Your task to perform on an android device: Open Google Maps and go to "Timeline" Image 0: 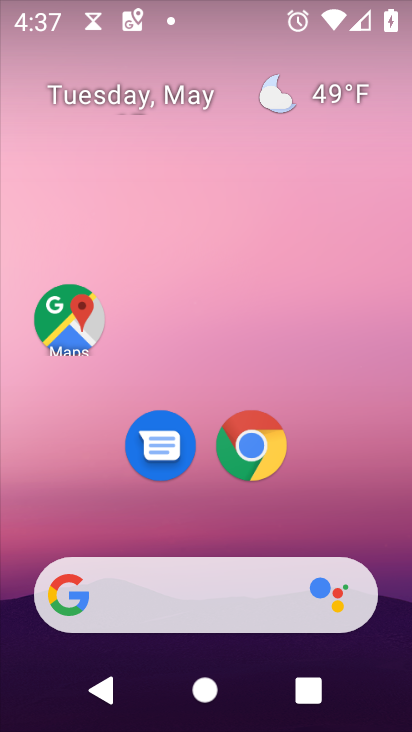
Step 0: drag from (331, 574) to (325, 55)
Your task to perform on an android device: Open Google Maps and go to "Timeline" Image 1: 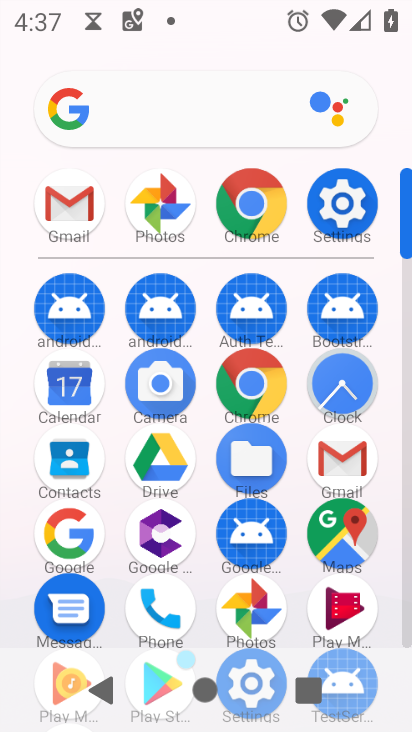
Step 1: click (347, 522)
Your task to perform on an android device: Open Google Maps and go to "Timeline" Image 2: 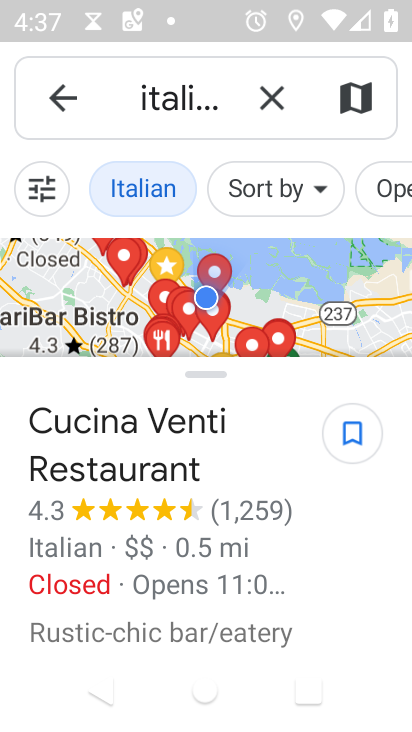
Step 2: press back button
Your task to perform on an android device: Open Google Maps and go to "Timeline" Image 3: 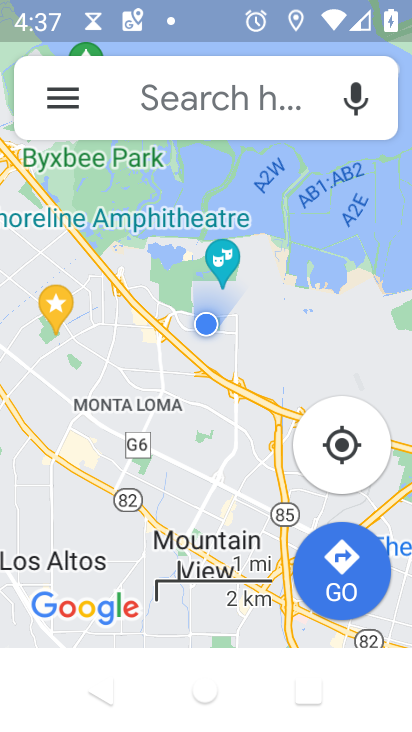
Step 3: click (73, 108)
Your task to perform on an android device: Open Google Maps and go to "Timeline" Image 4: 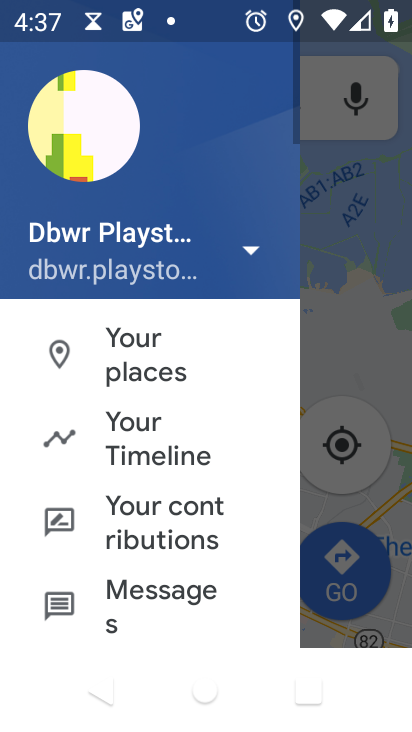
Step 4: click (189, 430)
Your task to perform on an android device: Open Google Maps and go to "Timeline" Image 5: 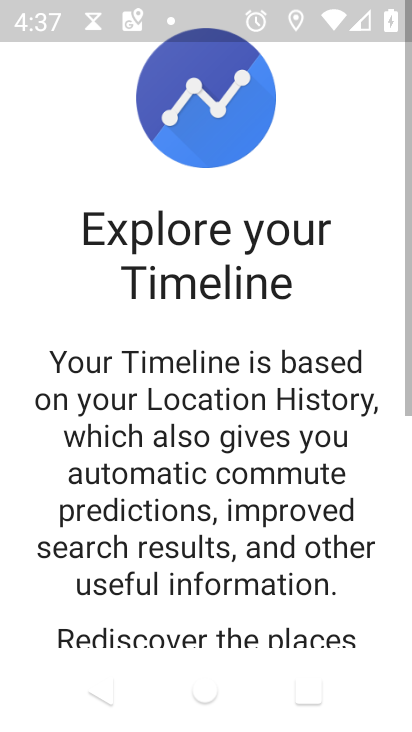
Step 5: drag from (361, 552) to (329, 109)
Your task to perform on an android device: Open Google Maps and go to "Timeline" Image 6: 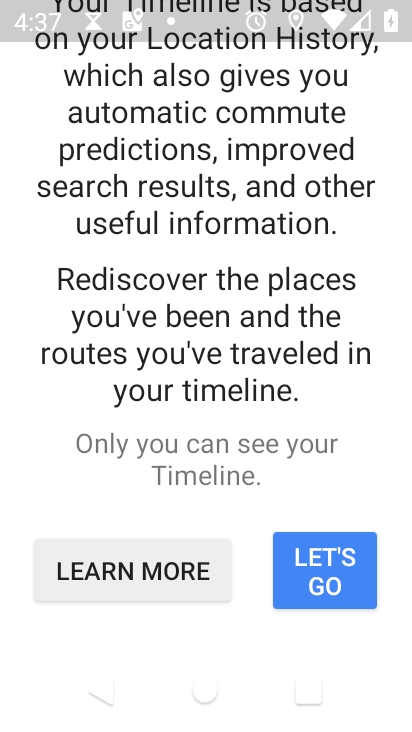
Step 6: drag from (257, 532) to (277, 184)
Your task to perform on an android device: Open Google Maps and go to "Timeline" Image 7: 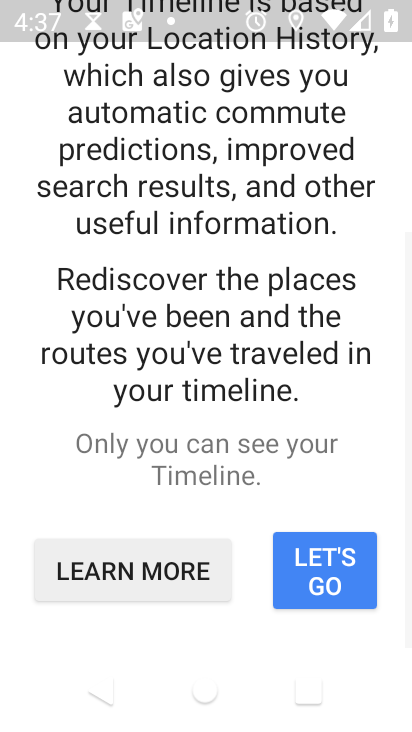
Step 7: click (317, 576)
Your task to perform on an android device: Open Google Maps and go to "Timeline" Image 8: 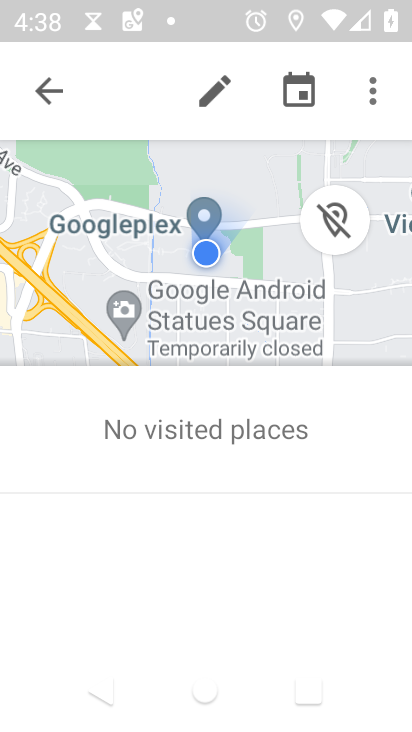
Step 8: task complete